Your task to perform on an android device: Open the web browser Image 0: 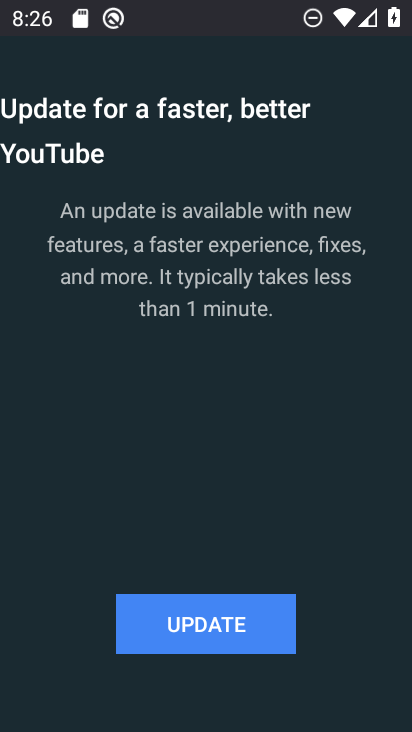
Step 0: press home button
Your task to perform on an android device: Open the web browser Image 1: 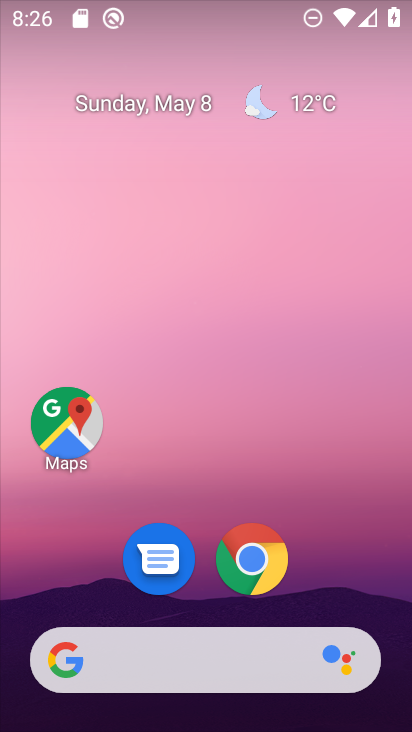
Step 1: click (253, 573)
Your task to perform on an android device: Open the web browser Image 2: 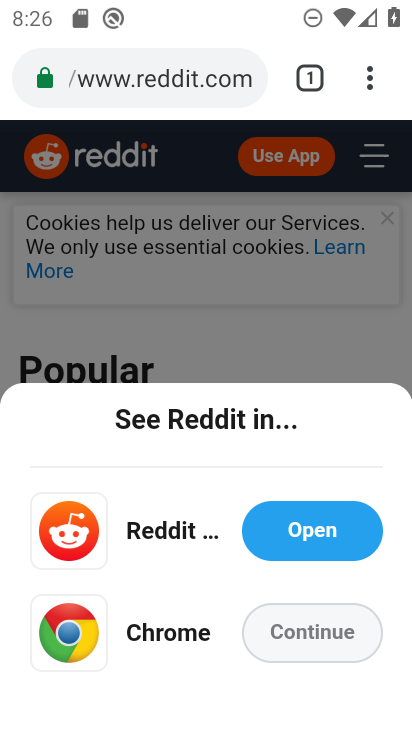
Step 2: task complete